Your task to perform on an android device: Open battery settings Image 0: 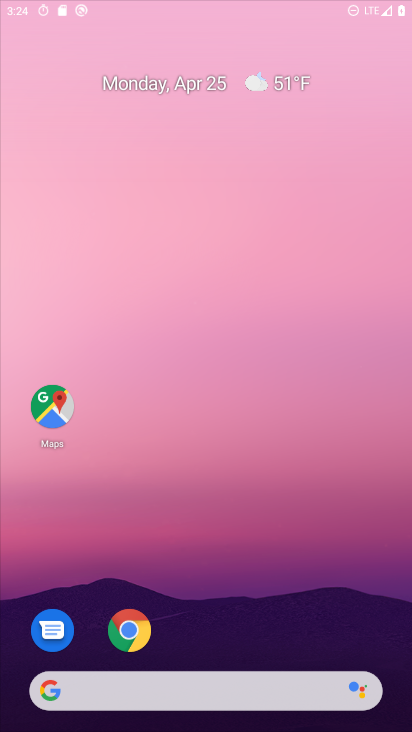
Step 0: click (286, 307)
Your task to perform on an android device: Open battery settings Image 1: 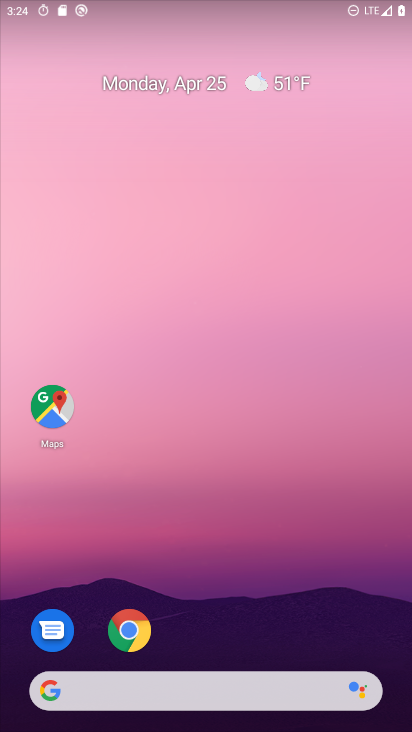
Step 1: drag from (220, 589) to (336, 221)
Your task to perform on an android device: Open battery settings Image 2: 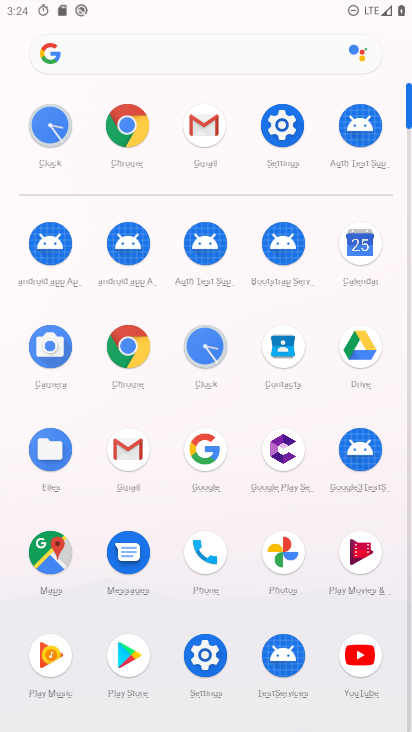
Step 2: click (213, 653)
Your task to perform on an android device: Open battery settings Image 3: 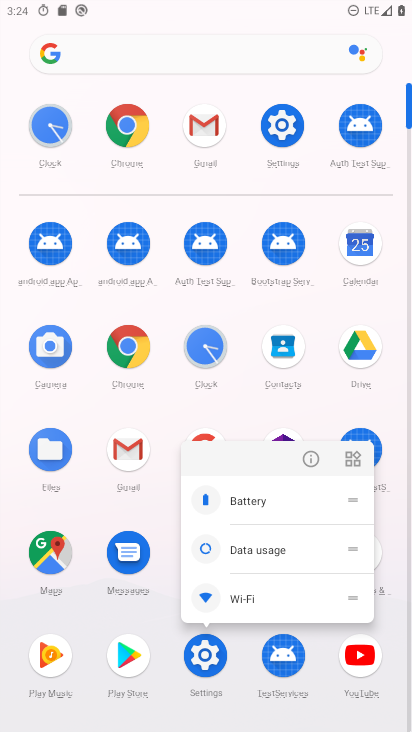
Step 3: click (318, 453)
Your task to perform on an android device: Open battery settings Image 4: 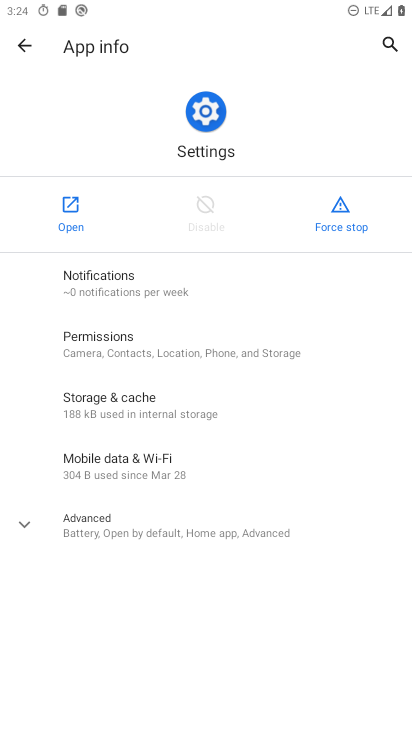
Step 4: click (78, 197)
Your task to perform on an android device: Open battery settings Image 5: 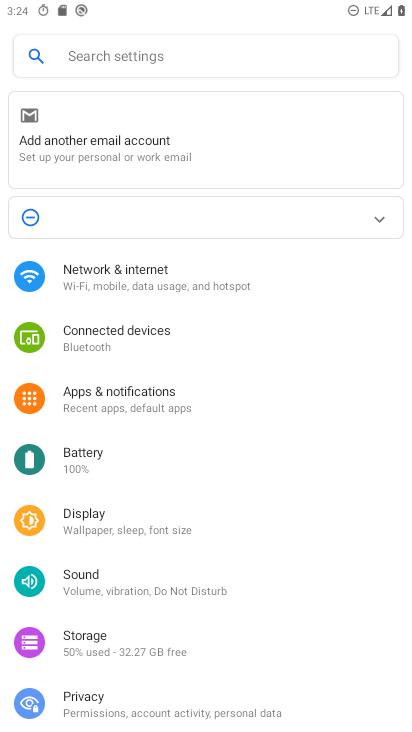
Step 5: drag from (178, 505) to (257, 272)
Your task to perform on an android device: Open battery settings Image 6: 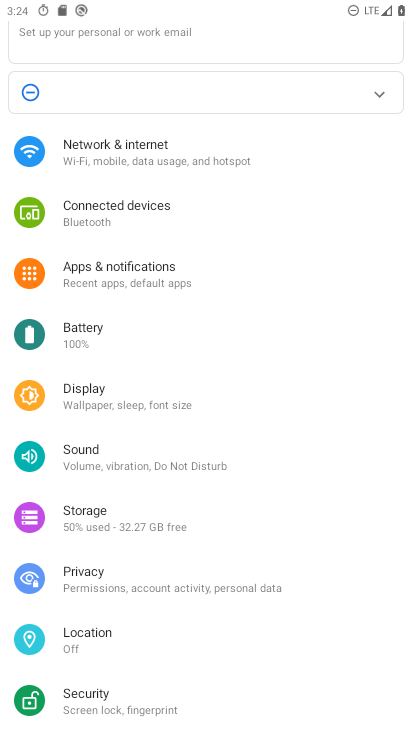
Step 6: click (185, 338)
Your task to perform on an android device: Open battery settings Image 7: 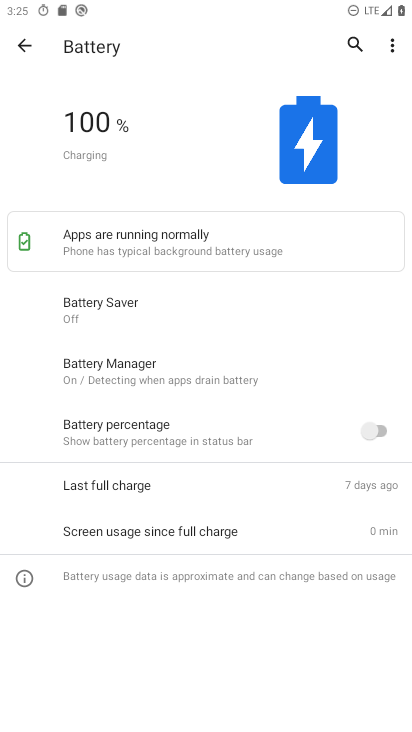
Step 7: task complete